Your task to perform on an android device: check google app version Image 0: 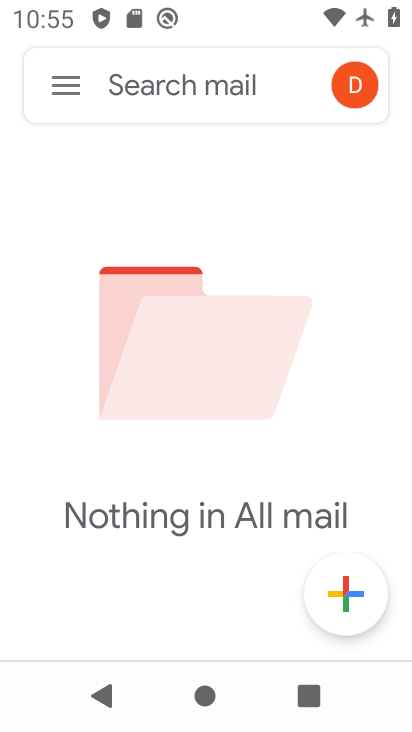
Step 0: press home button
Your task to perform on an android device: check google app version Image 1: 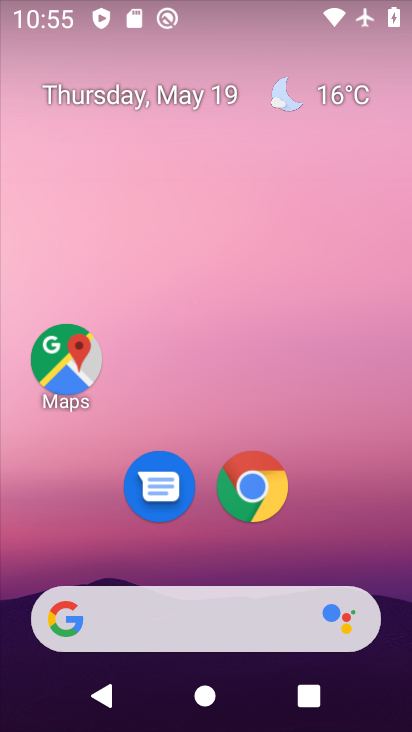
Step 1: click (278, 495)
Your task to perform on an android device: check google app version Image 2: 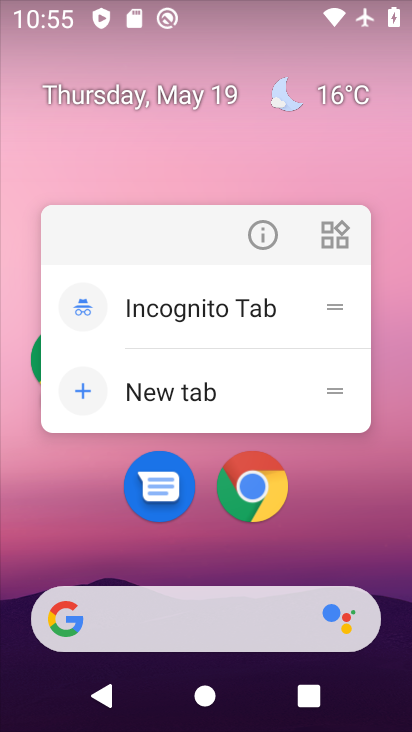
Step 2: click (249, 229)
Your task to perform on an android device: check google app version Image 3: 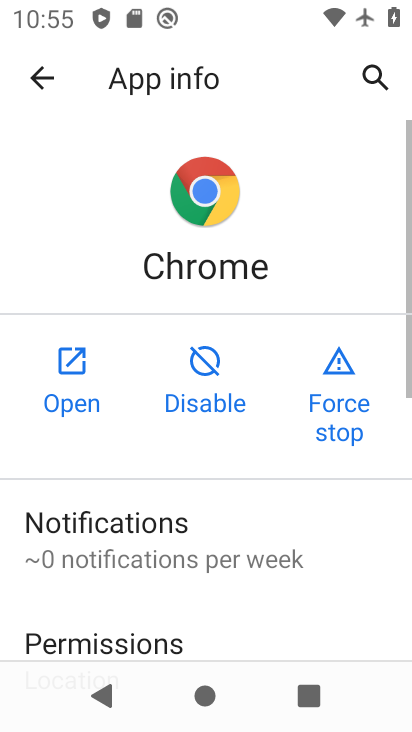
Step 3: drag from (163, 563) to (236, 261)
Your task to perform on an android device: check google app version Image 4: 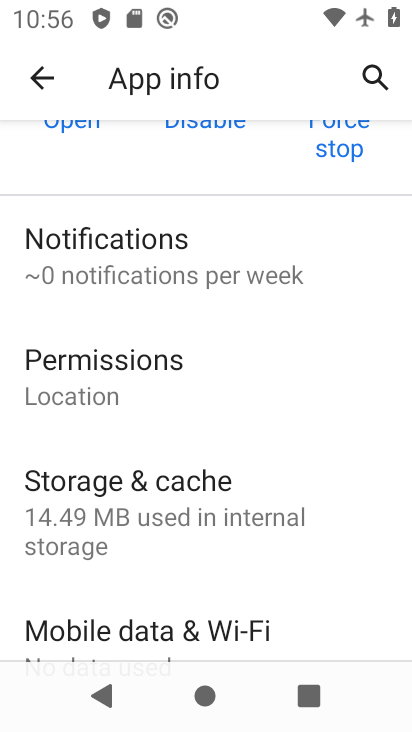
Step 4: drag from (205, 523) to (268, 217)
Your task to perform on an android device: check google app version Image 5: 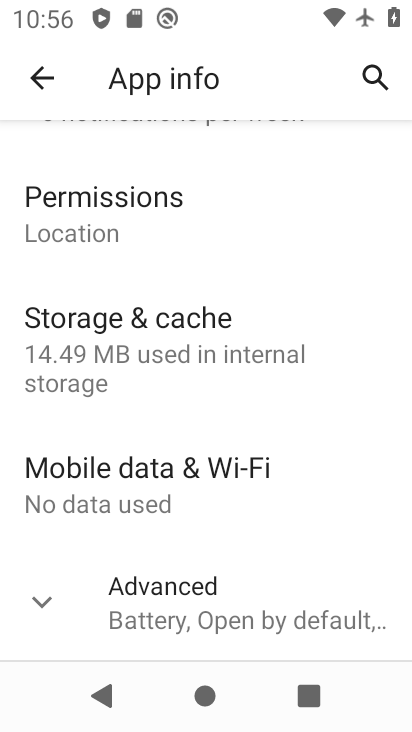
Step 5: click (217, 594)
Your task to perform on an android device: check google app version Image 6: 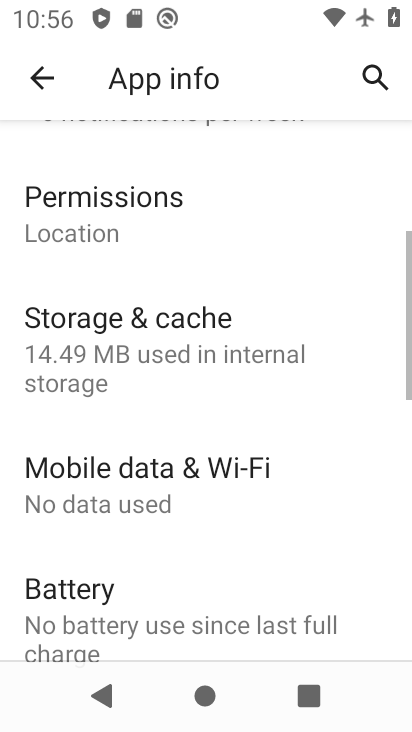
Step 6: task complete